Your task to perform on an android device: turn notification dots on Image 0: 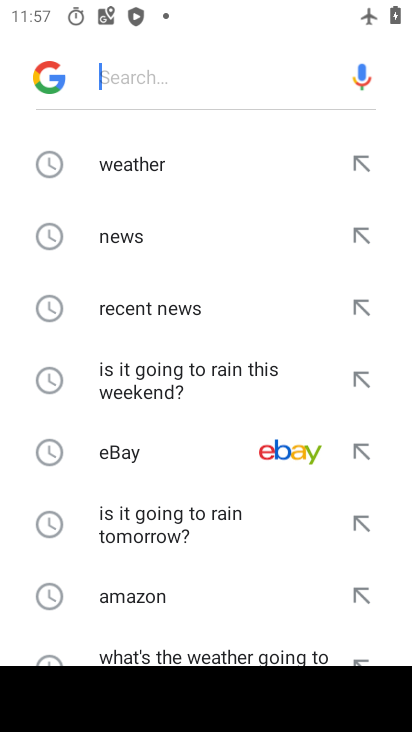
Step 0: press home button
Your task to perform on an android device: turn notification dots on Image 1: 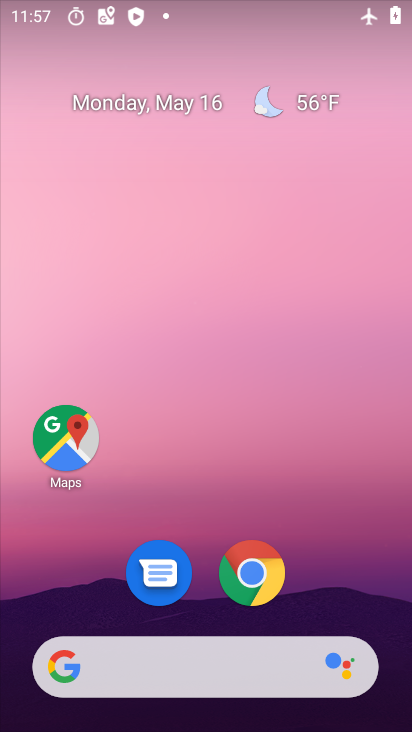
Step 1: drag from (213, 705) to (229, 17)
Your task to perform on an android device: turn notification dots on Image 2: 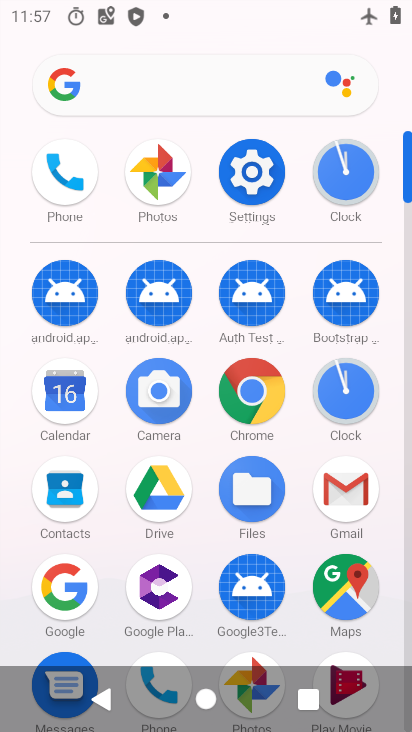
Step 2: click (275, 140)
Your task to perform on an android device: turn notification dots on Image 3: 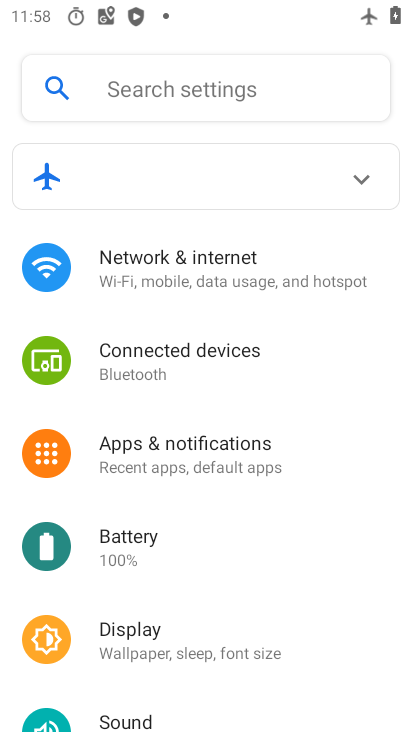
Step 3: click (301, 448)
Your task to perform on an android device: turn notification dots on Image 4: 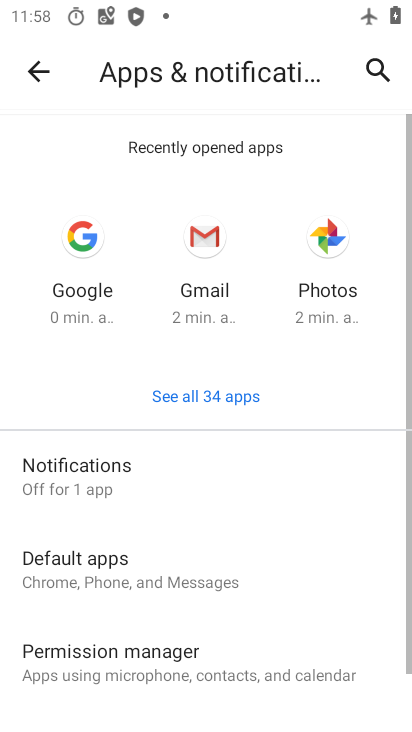
Step 4: click (91, 491)
Your task to perform on an android device: turn notification dots on Image 5: 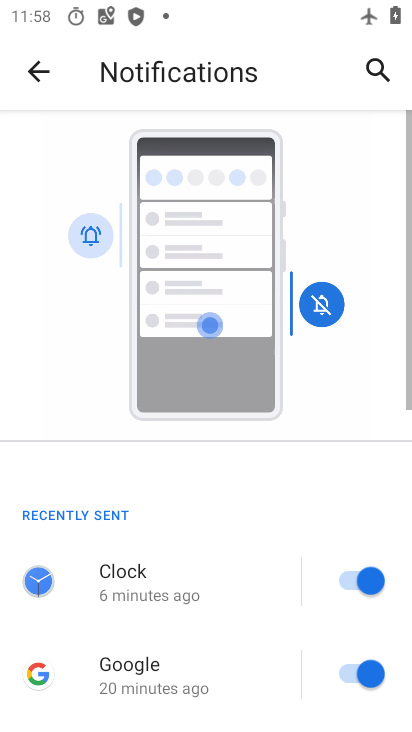
Step 5: drag from (204, 681) to (226, 5)
Your task to perform on an android device: turn notification dots on Image 6: 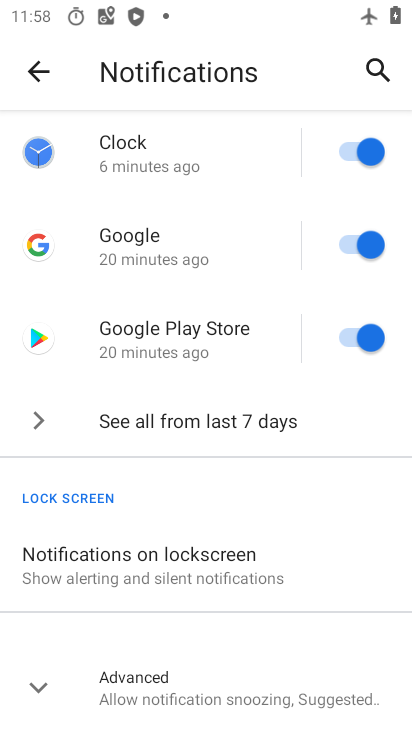
Step 6: click (186, 698)
Your task to perform on an android device: turn notification dots on Image 7: 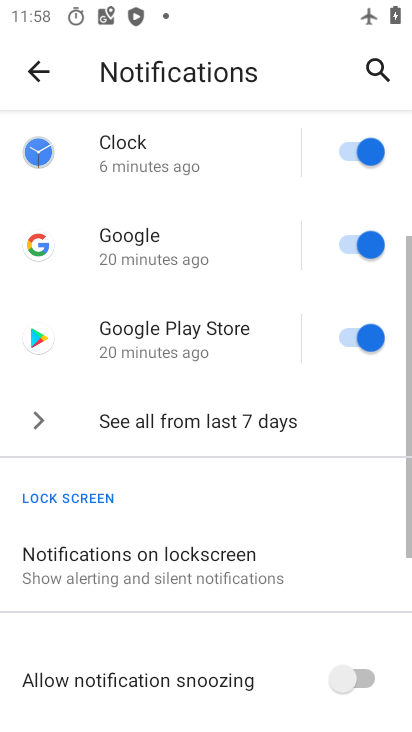
Step 7: task complete